Your task to perform on an android device: Open internet settings Image 0: 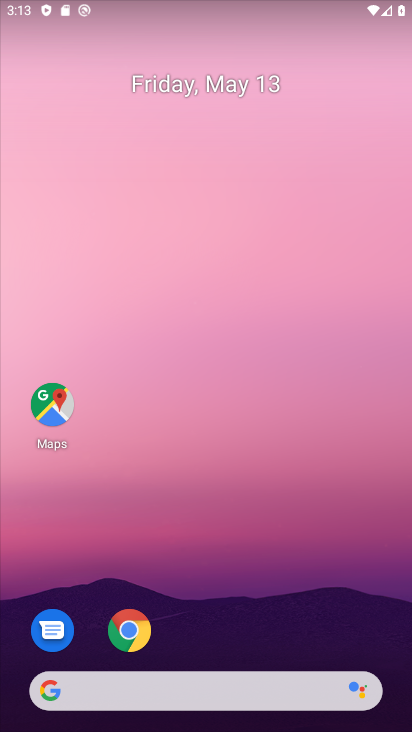
Step 0: drag from (212, 661) to (126, 111)
Your task to perform on an android device: Open internet settings Image 1: 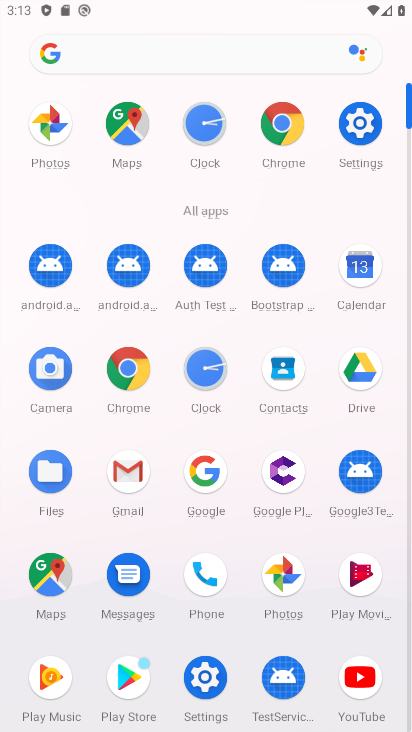
Step 1: click (344, 133)
Your task to perform on an android device: Open internet settings Image 2: 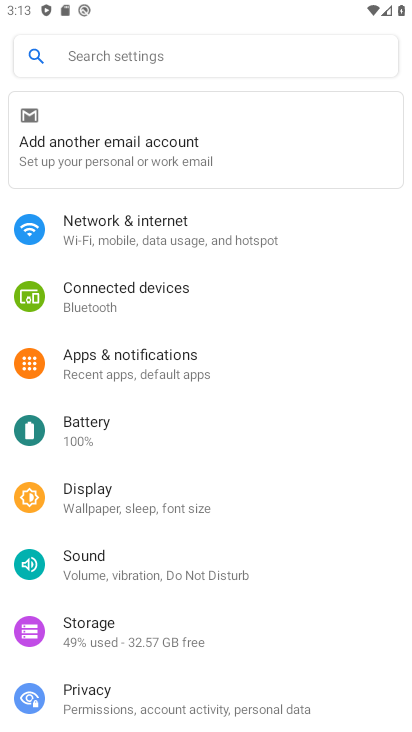
Step 2: click (96, 252)
Your task to perform on an android device: Open internet settings Image 3: 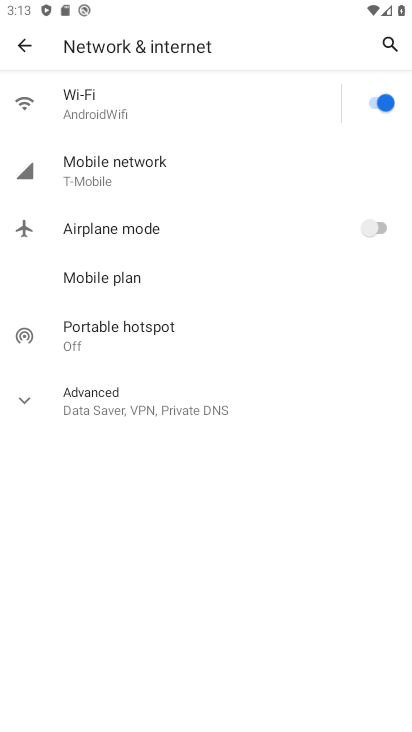
Step 3: click (113, 179)
Your task to perform on an android device: Open internet settings Image 4: 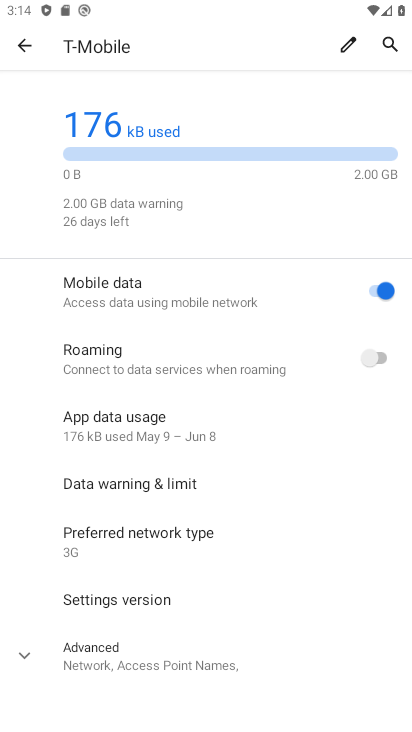
Step 4: task complete